Your task to perform on an android device: open app "ZOOM Cloud Meetings" (install if not already installed) and enter user name: "bauxite@icloud.com" and password: "dim" Image 0: 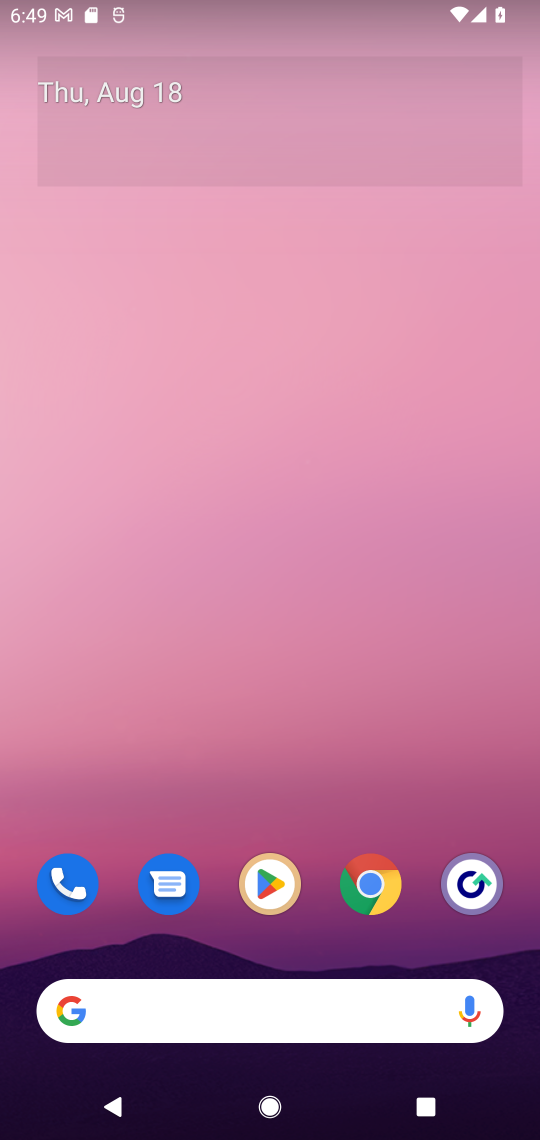
Step 0: drag from (216, 1016) to (176, 96)
Your task to perform on an android device: open app "ZOOM Cloud Meetings" (install if not already installed) and enter user name: "bauxite@icloud.com" and password: "dim" Image 1: 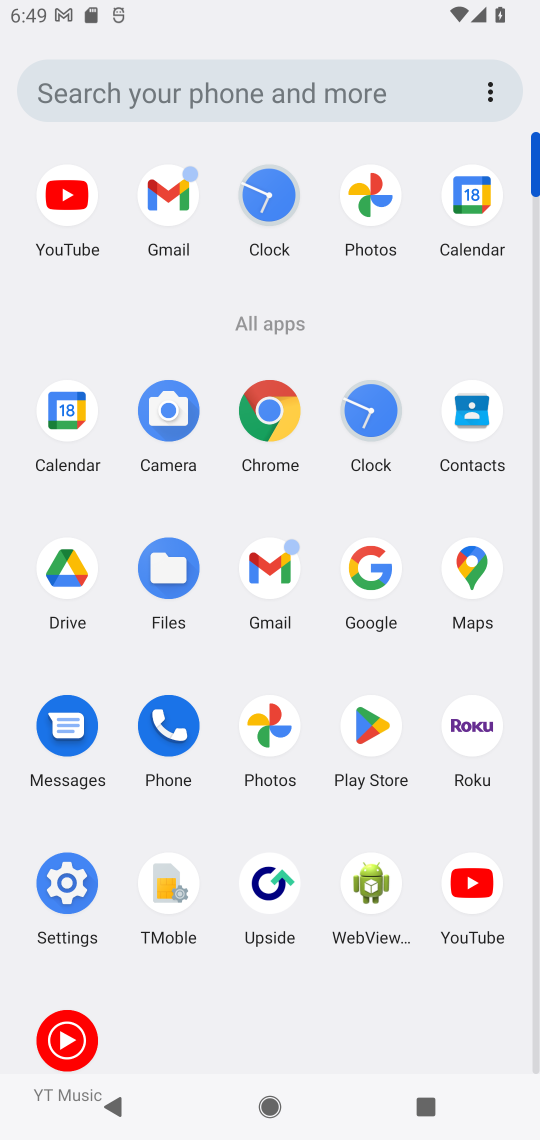
Step 1: click (377, 722)
Your task to perform on an android device: open app "ZOOM Cloud Meetings" (install if not already installed) and enter user name: "bauxite@icloud.com" and password: "dim" Image 2: 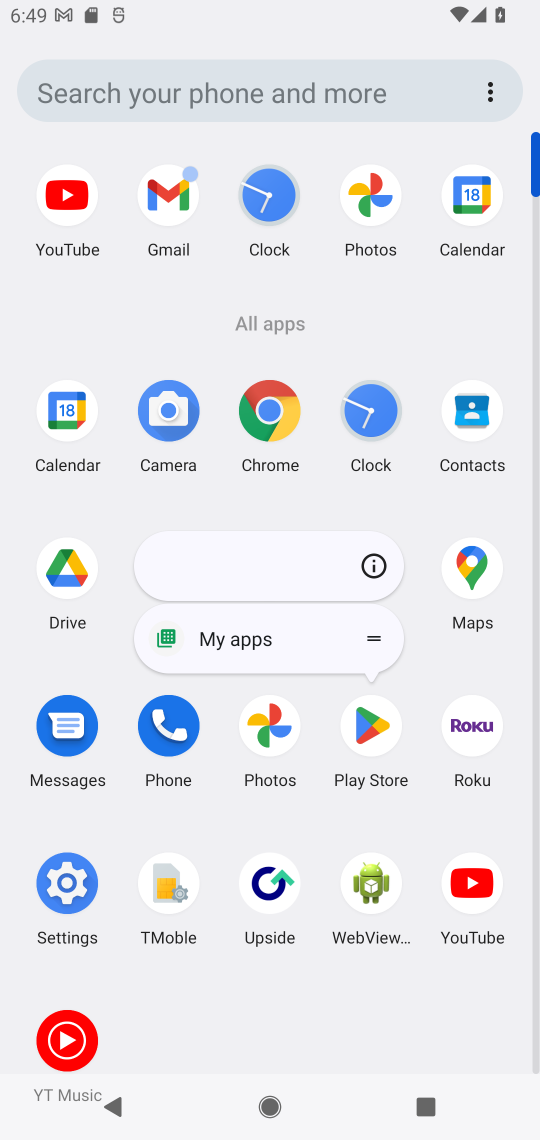
Step 2: click (377, 722)
Your task to perform on an android device: open app "ZOOM Cloud Meetings" (install if not already installed) and enter user name: "bauxite@icloud.com" and password: "dim" Image 3: 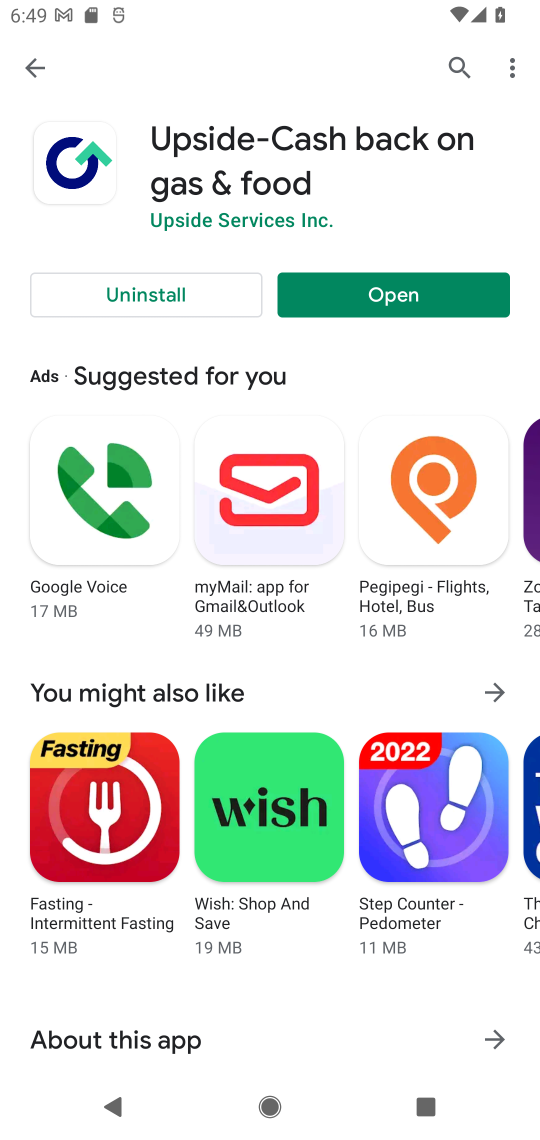
Step 3: press back button
Your task to perform on an android device: open app "ZOOM Cloud Meetings" (install if not already installed) and enter user name: "bauxite@icloud.com" and password: "dim" Image 4: 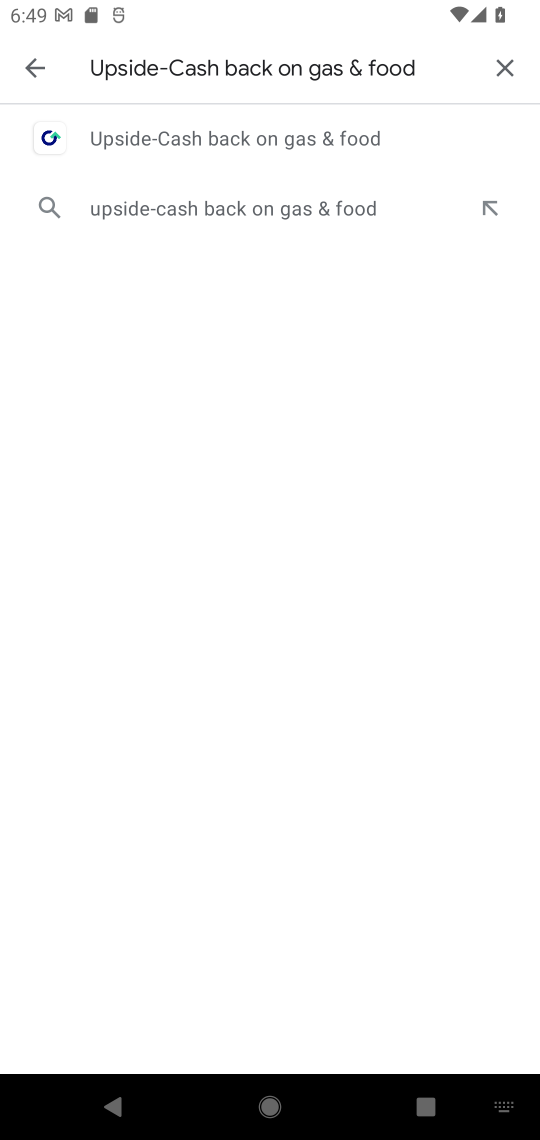
Step 4: press back button
Your task to perform on an android device: open app "ZOOM Cloud Meetings" (install if not already installed) and enter user name: "bauxite@icloud.com" and password: "dim" Image 5: 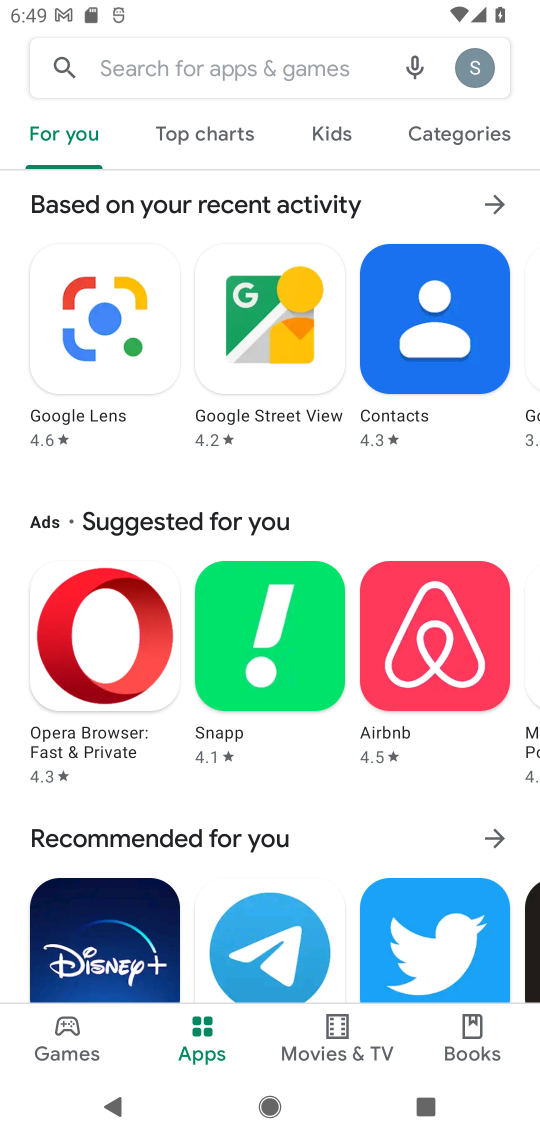
Step 5: click (237, 67)
Your task to perform on an android device: open app "ZOOM Cloud Meetings" (install if not already installed) and enter user name: "bauxite@icloud.com" and password: "dim" Image 6: 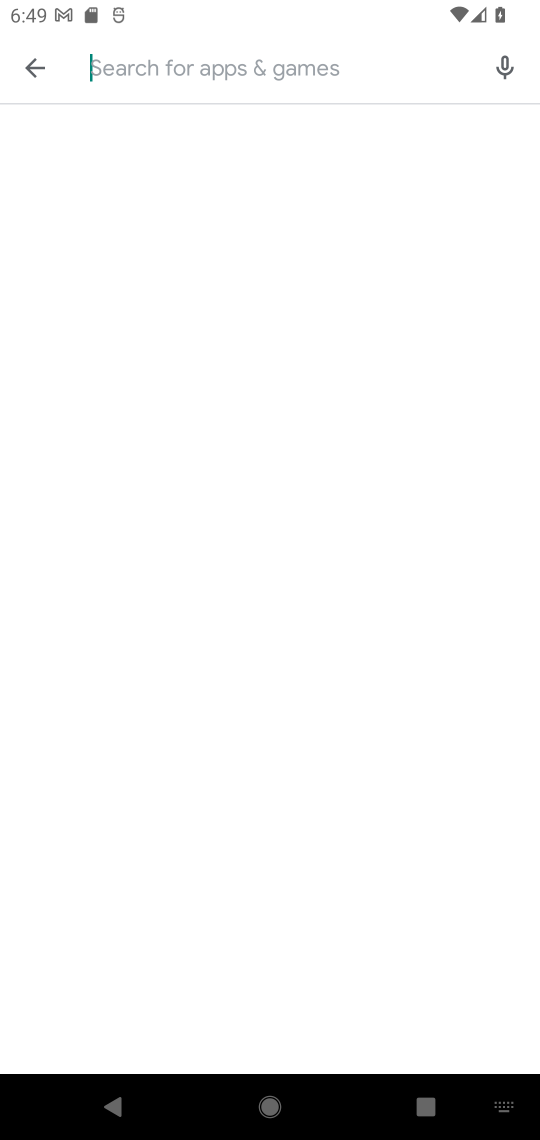
Step 6: type "ZOOM Cloud Meetings"
Your task to perform on an android device: open app "ZOOM Cloud Meetings" (install if not already installed) and enter user name: "bauxite@icloud.com" and password: "dim" Image 7: 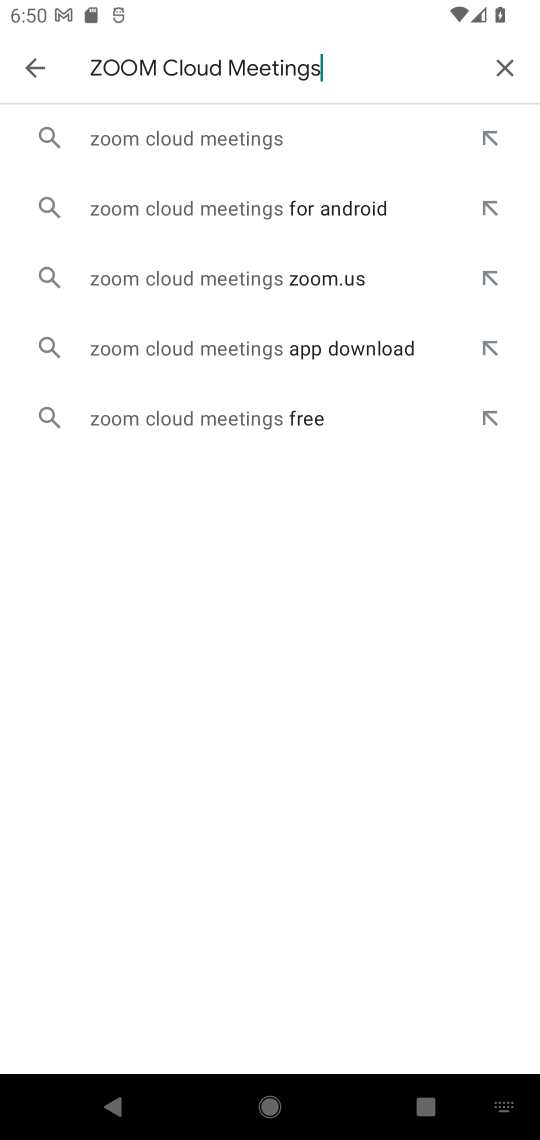
Step 7: click (247, 141)
Your task to perform on an android device: open app "ZOOM Cloud Meetings" (install if not already installed) and enter user name: "bauxite@icloud.com" and password: "dim" Image 8: 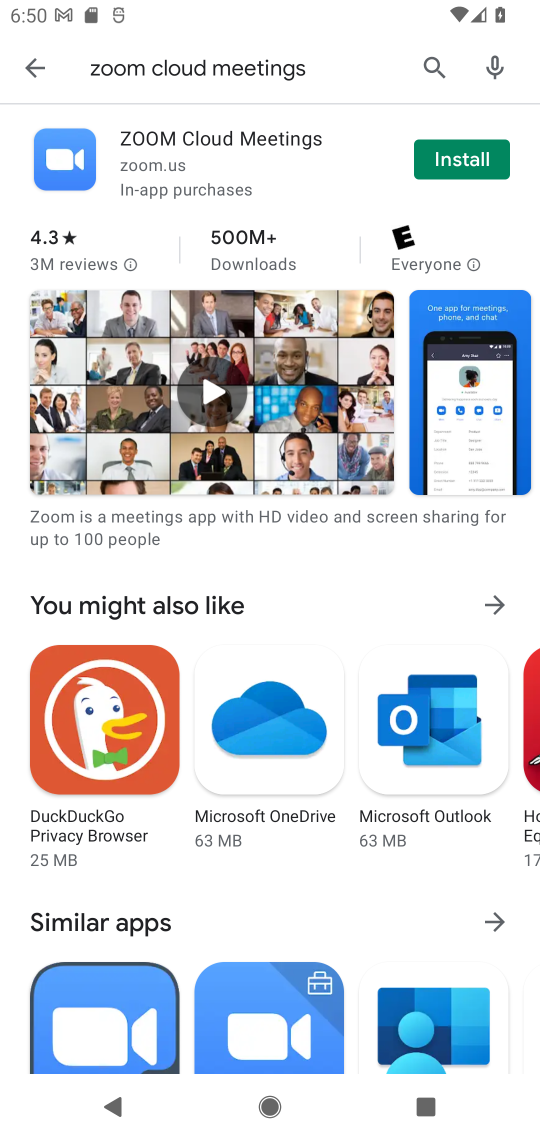
Step 8: click (466, 158)
Your task to perform on an android device: open app "ZOOM Cloud Meetings" (install if not already installed) and enter user name: "bauxite@icloud.com" and password: "dim" Image 9: 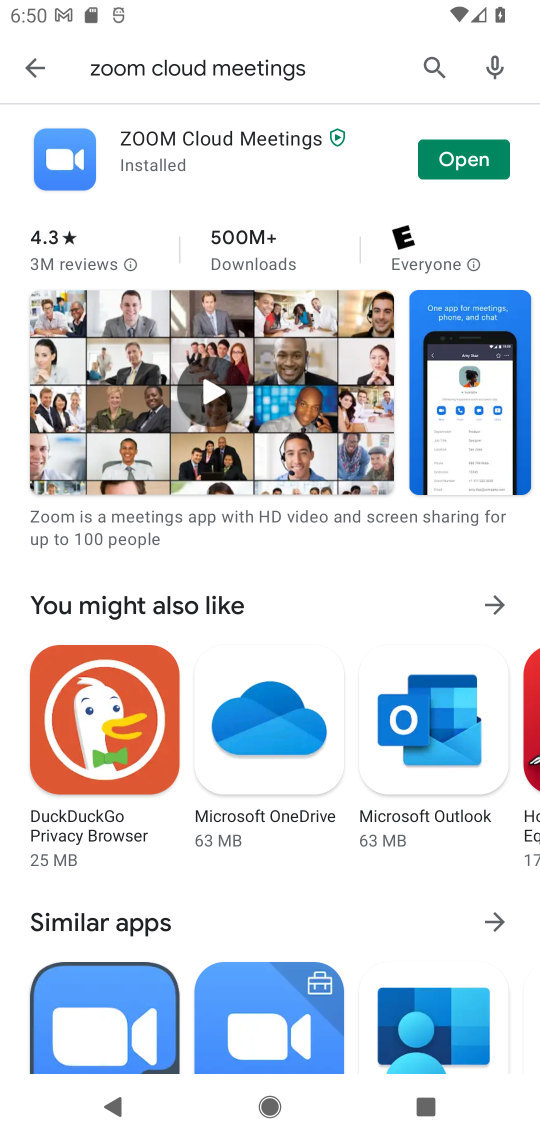
Step 9: click (481, 167)
Your task to perform on an android device: open app "ZOOM Cloud Meetings" (install if not already installed) and enter user name: "bauxite@icloud.com" and password: "dim" Image 10: 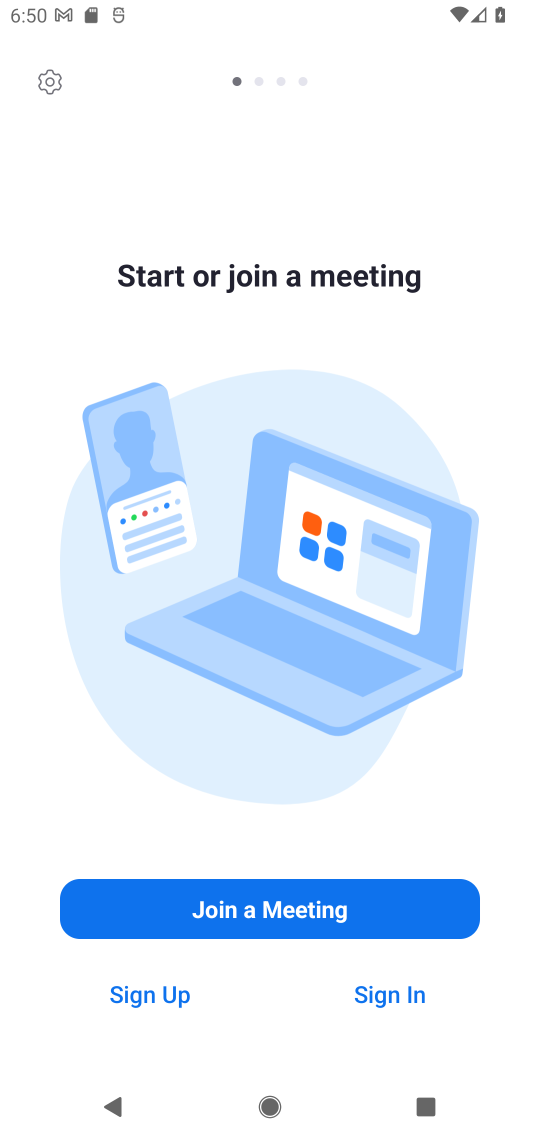
Step 10: click (390, 1001)
Your task to perform on an android device: open app "ZOOM Cloud Meetings" (install if not already installed) and enter user name: "bauxite@icloud.com" and password: "dim" Image 11: 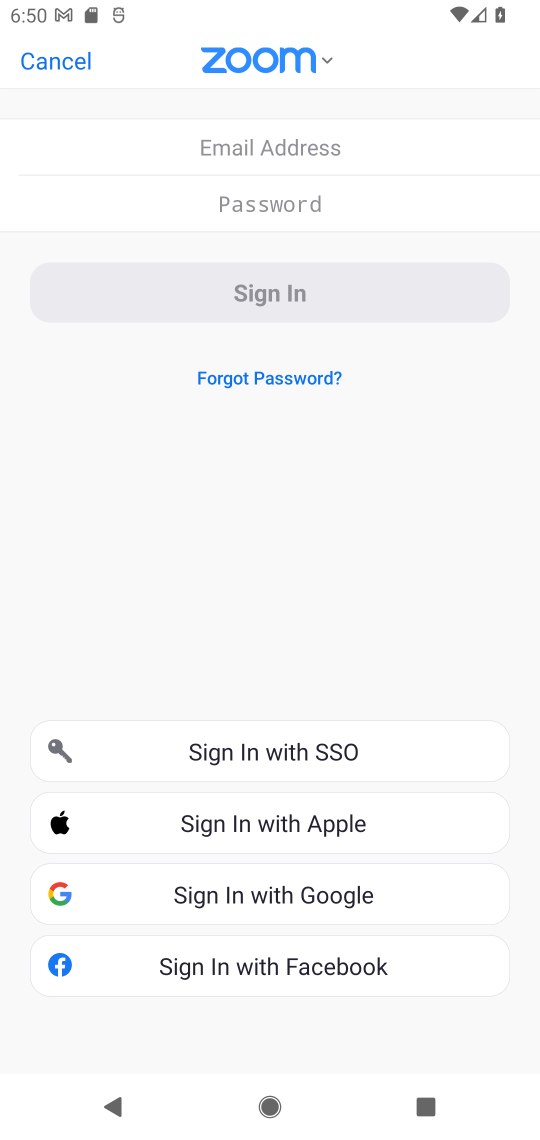
Step 11: click (319, 138)
Your task to perform on an android device: open app "ZOOM Cloud Meetings" (install if not already installed) and enter user name: "bauxite@icloud.com" and password: "dim" Image 12: 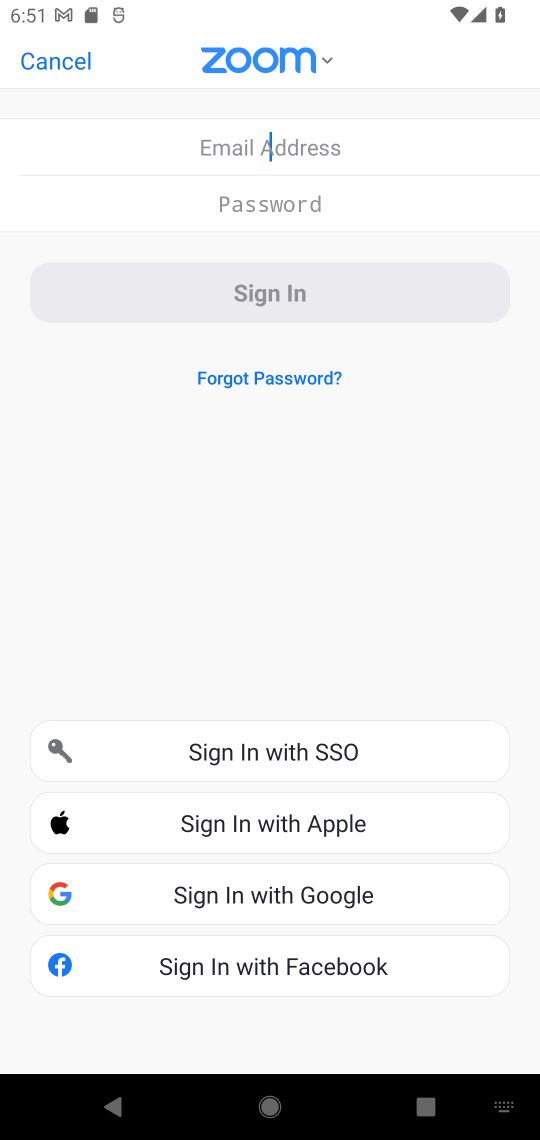
Step 12: type "bauxite@icloud.com"
Your task to perform on an android device: open app "ZOOM Cloud Meetings" (install if not already installed) and enter user name: "bauxite@icloud.com" and password: "dim" Image 13: 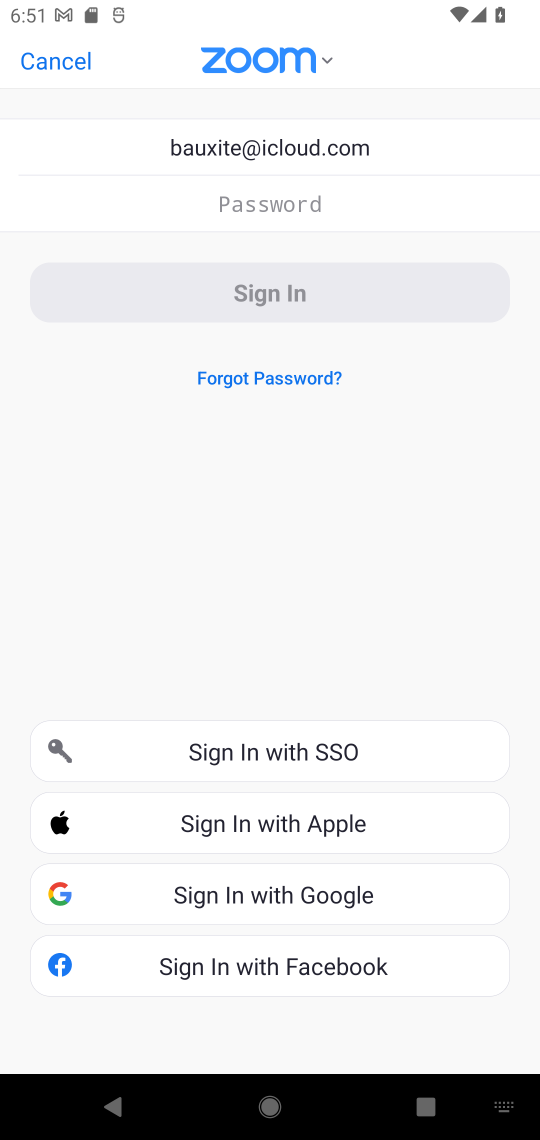
Step 13: click (263, 207)
Your task to perform on an android device: open app "ZOOM Cloud Meetings" (install if not already installed) and enter user name: "bauxite@icloud.com" and password: "dim" Image 14: 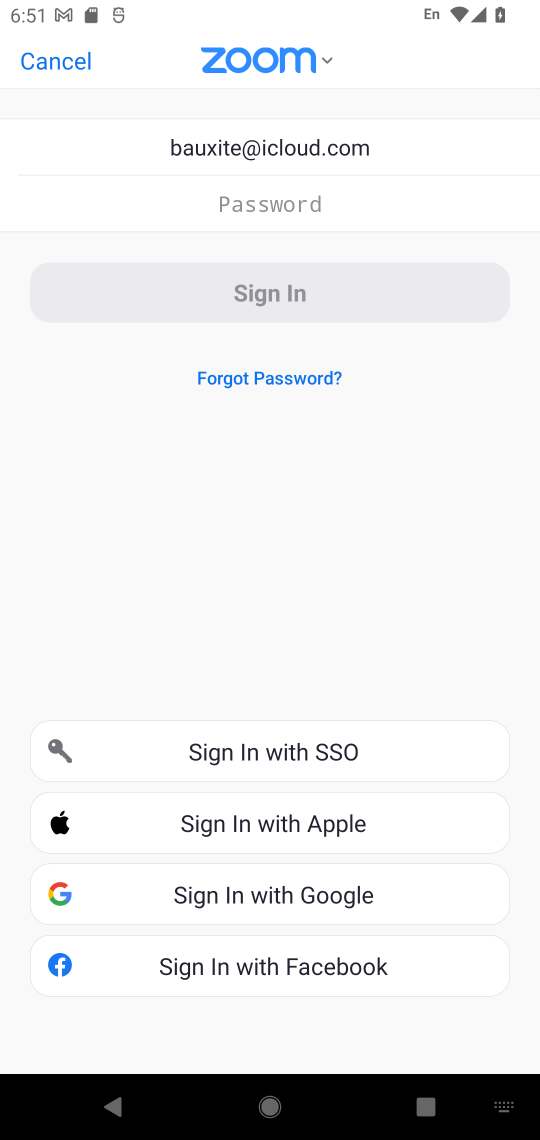
Step 14: type "dim"
Your task to perform on an android device: open app "ZOOM Cloud Meetings" (install if not already installed) and enter user name: "bauxite@icloud.com" and password: "dim" Image 15: 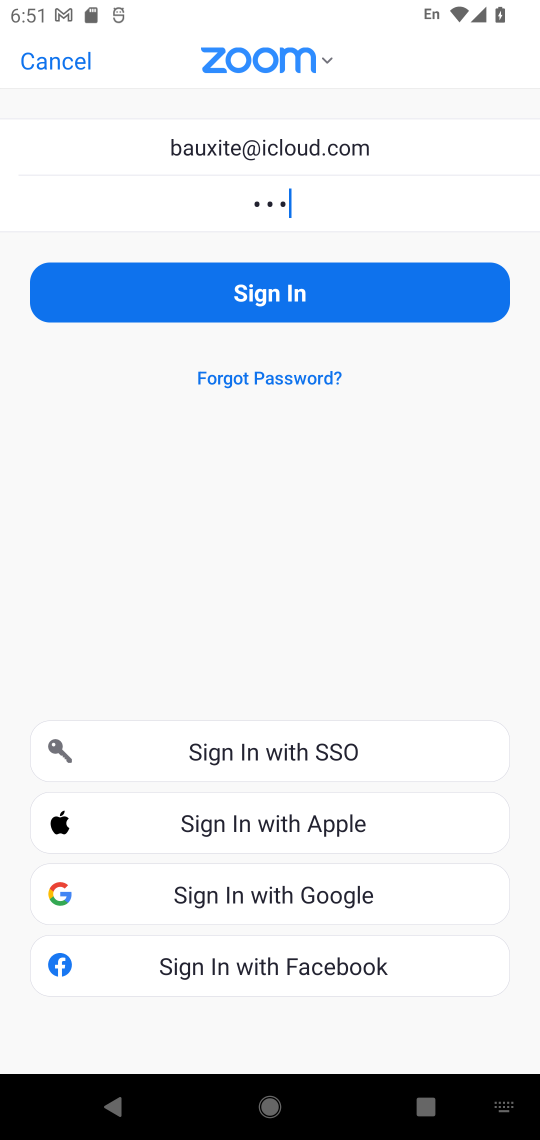
Step 15: task complete